Your task to perform on an android device: see tabs open on other devices in the chrome app Image 0: 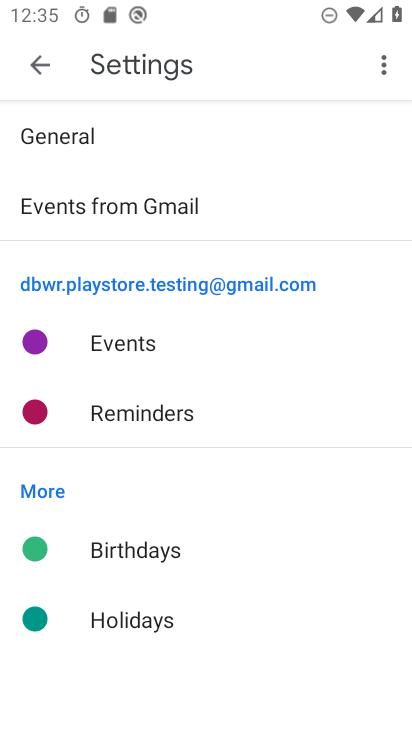
Step 0: press home button
Your task to perform on an android device: see tabs open on other devices in the chrome app Image 1: 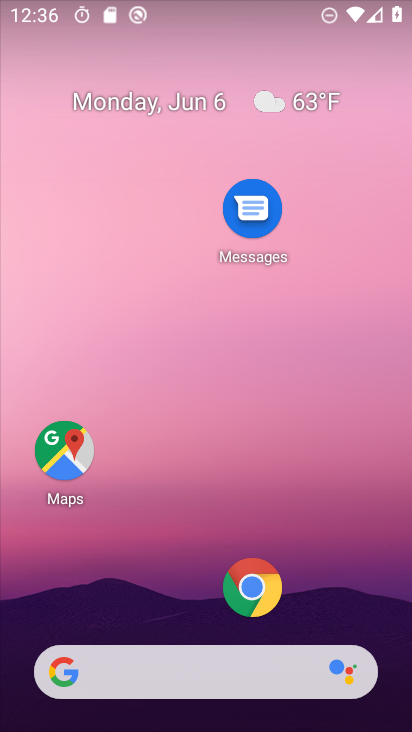
Step 1: click (244, 590)
Your task to perform on an android device: see tabs open on other devices in the chrome app Image 2: 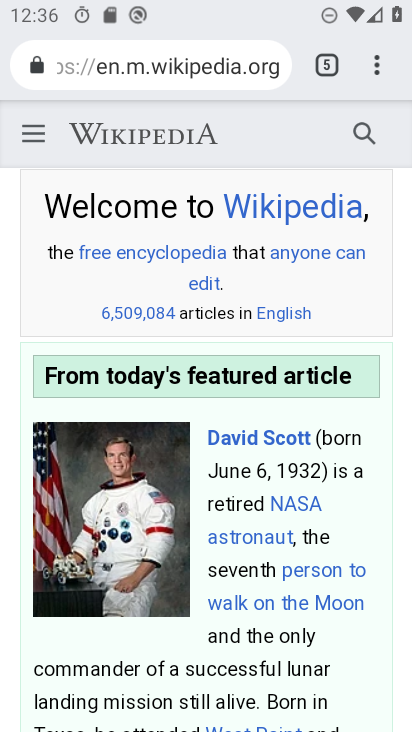
Step 2: click (388, 58)
Your task to perform on an android device: see tabs open on other devices in the chrome app Image 3: 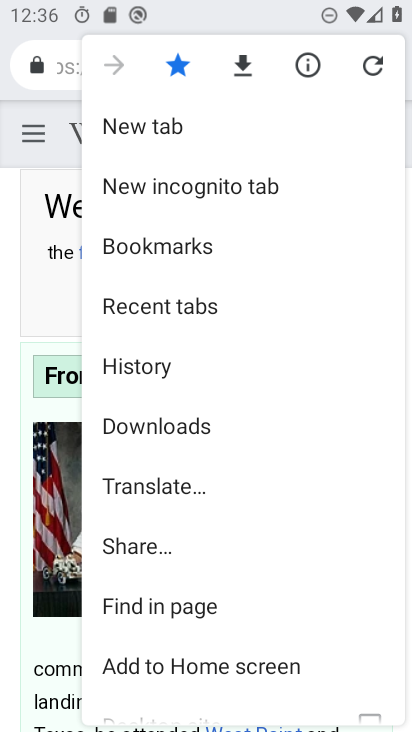
Step 3: click (206, 321)
Your task to perform on an android device: see tabs open on other devices in the chrome app Image 4: 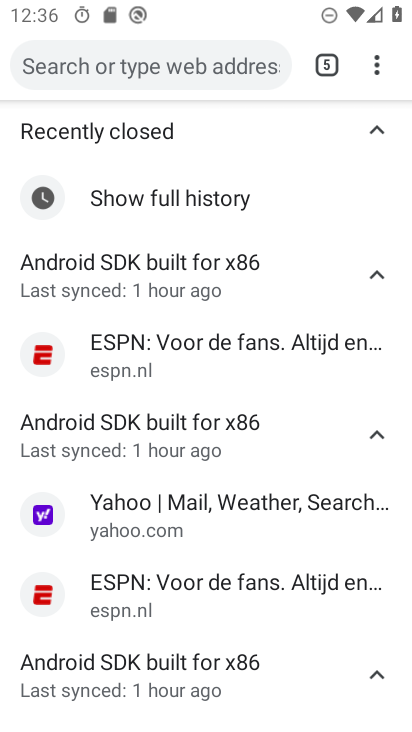
Step 4: task complete